Your task to perform on an android device: open app "Spotify" (install if not already installed) Image 0: 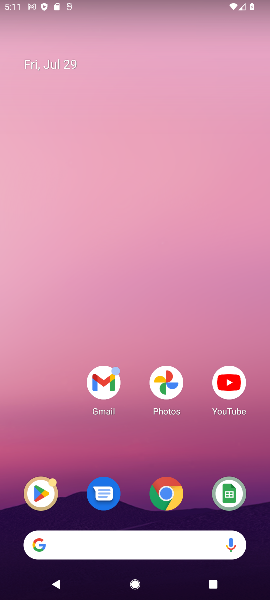
Step 0: drag from (162, 592) to (181, 88)
Your task to perform on an android device: open app "Spotify" (install if not already installed) Image 1: 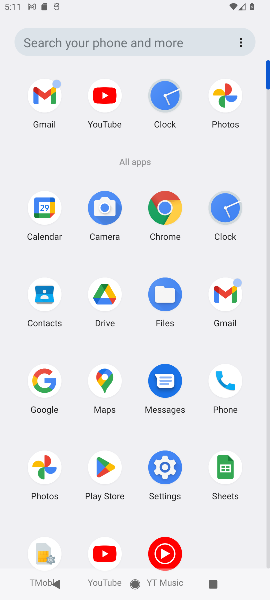
Step 1: click (105, 467)
Your task to perform on an android device: open app "Spotify" (install if not already installed) Image 2: 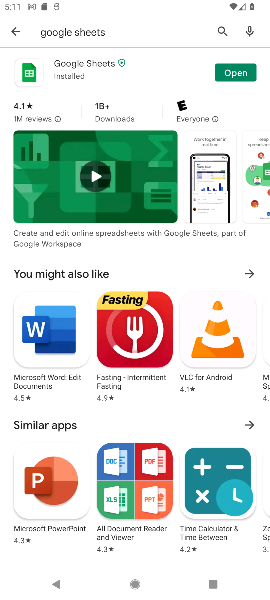
Step 2: click (219, 25)
Your task to perform on an android device: open app "Spotify" (install if not already installed) Image 3: 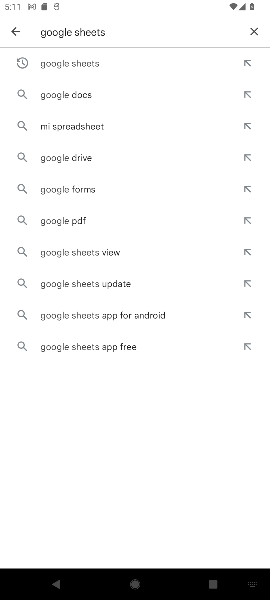
Step 3: click (251, 31)
Your task to perform on an android device: open app "Spotify" (install if not already installed) Image 4: 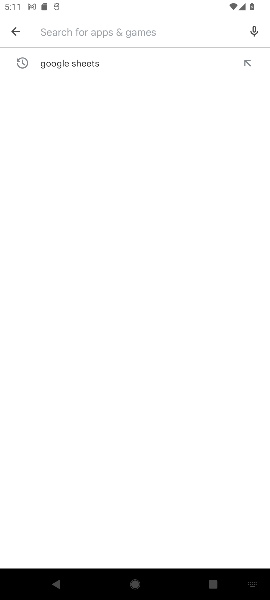
Step 4: type "Spotify"
Your task to perform on an android device: open app "Spotify" (install if not already installed) Image 5: 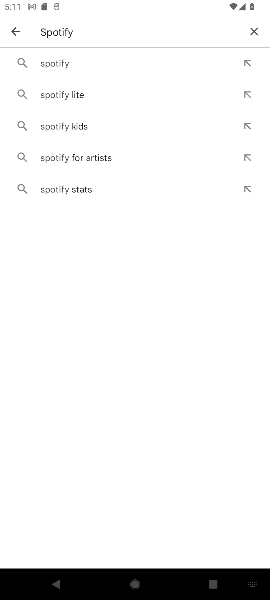
Step 5: click (46, 63)
Your task to perform on an android device: open app "Spotify" (install if not already installed) Image 6: 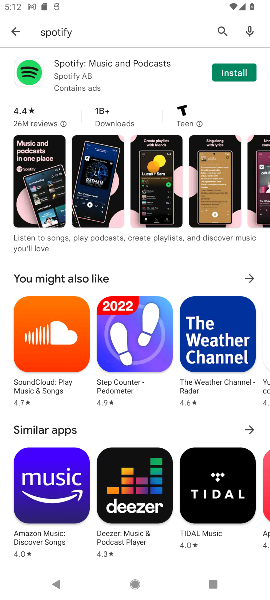
Step 6: click (231, 65)
Your task to perform on an android device: open app "Spotify" (install if not already installed) Image 7: 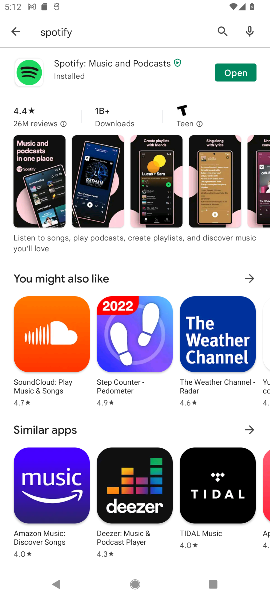
Step 7: task complete